Your task to perform on an android device: change notifications settings Image 0: 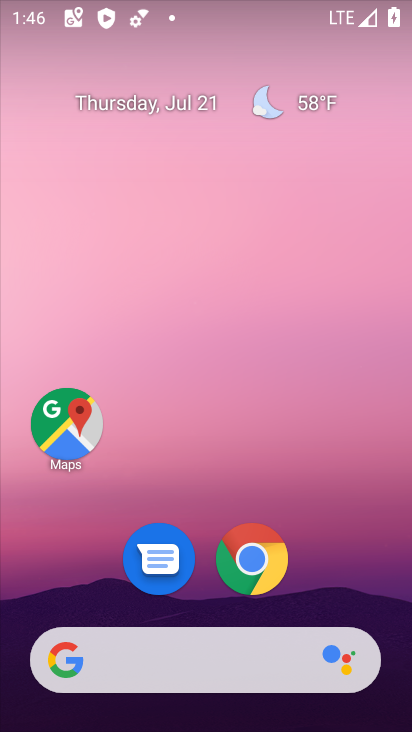
Step 0: drag from (367, 575) to (382, 92)
Your task to perform on an android device: change notifications settings Image 1: 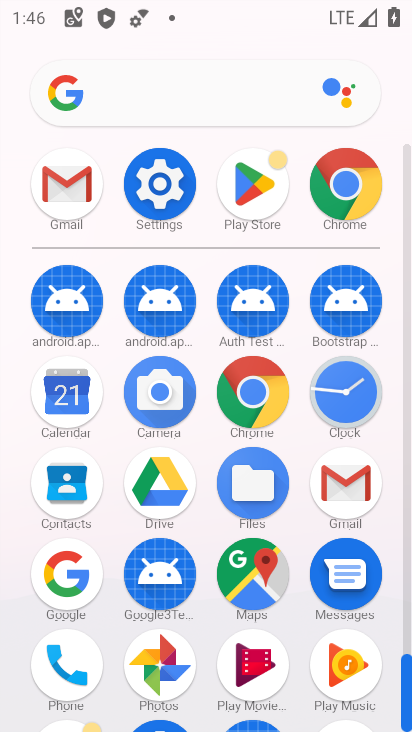
Step 1: click (175, 203)
Your task to perform on an android device: change notifications settings Image 2: 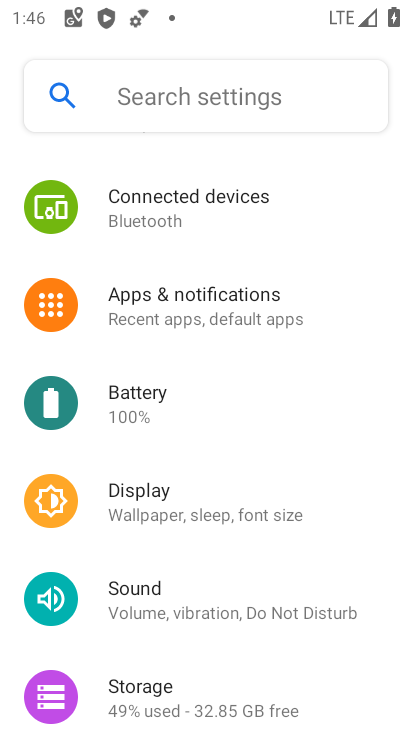
Step 2: drag from (334, 435) to (332, 335)
Your task to perform on an android device: change notifications settings Image 3: 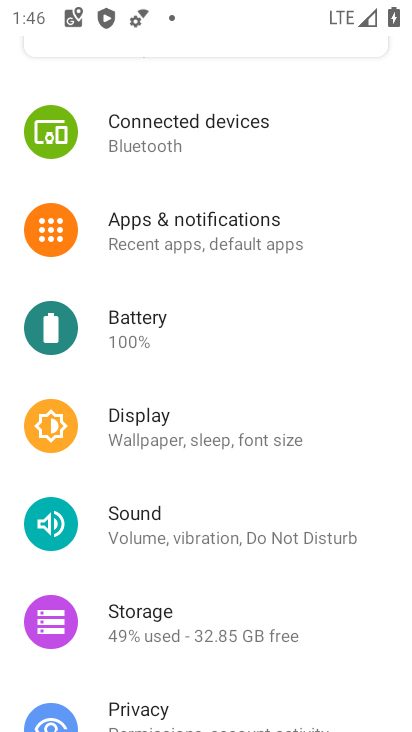
Step 3: drag from (335, 456) to (348, 369)
Your task to perform on an android device: change notifications settings Image 4: 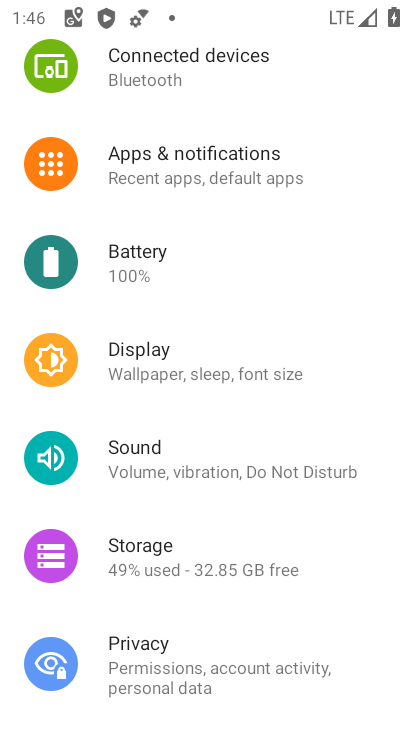
Step 4: drag from (362, 511) to (371, 440)
Your task to perform on an android device: change notifications settings Image 5: 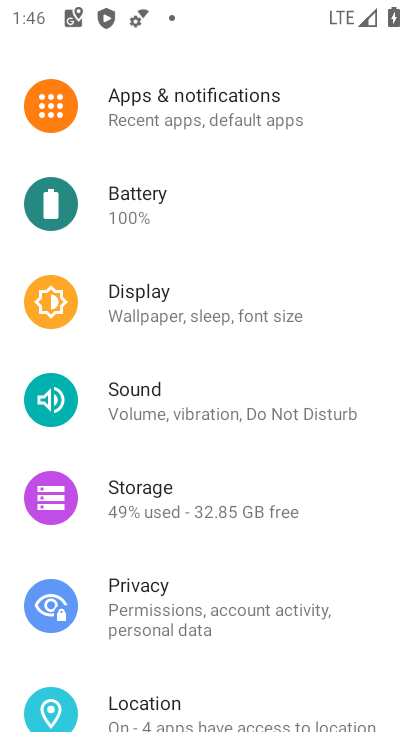
Step 5: drag from (362, 523) to (364, 432)
Your task to perform on an android device: change notifications settings Image 6: 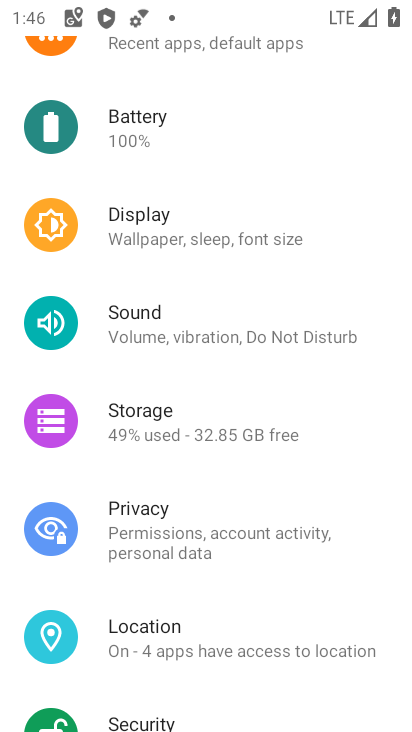
Step 6: drag from (351, 537) to (357, 456)
Your task to perform on an android device: change notifications settings Image 7: 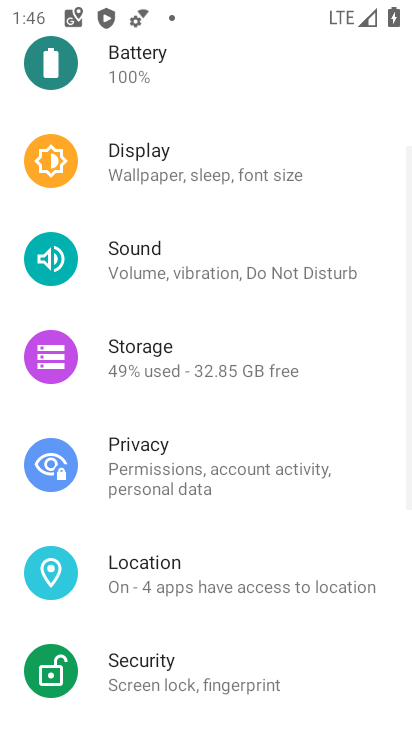
Step 7: drag from (348, 547) to (350, 418)
Your task to perform on an android device: change notifications settings Image 8: 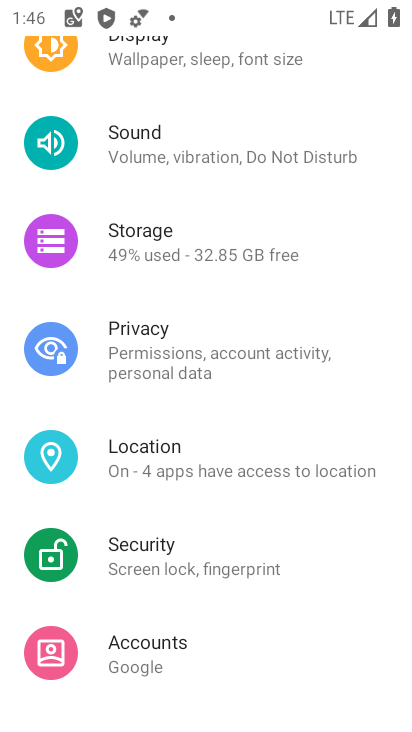
Step 8: drag from (342, 549) to (365, 360)
Your task to perform on an android device: change notifications settings Image 9: 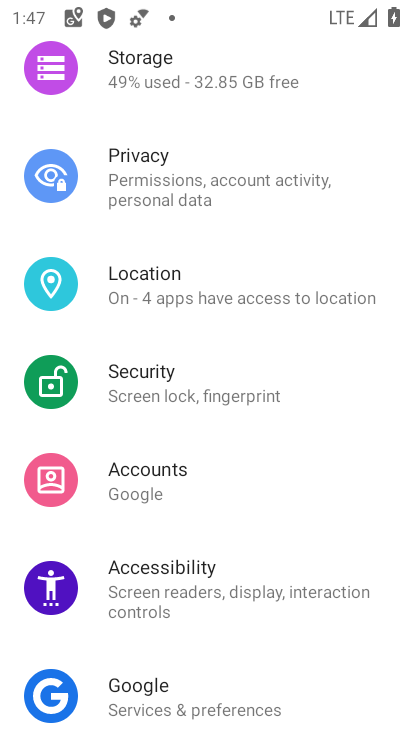
Step 9: drag from (362, 345) to (354, 431)
Your task to perform on an android device: change notifications settings Image 10: 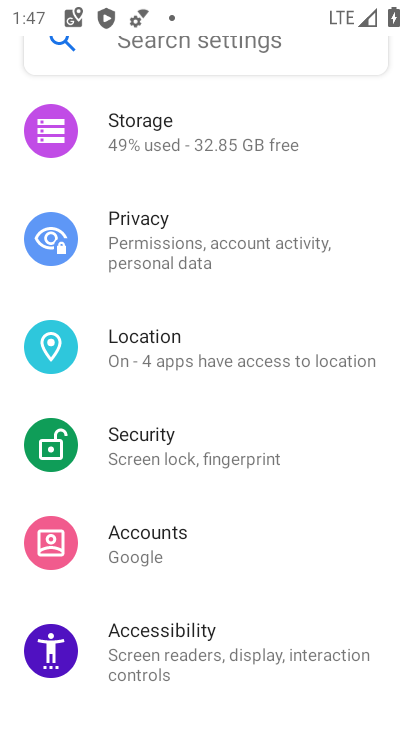
Step 10: drag from (369, 301) to (374, 409)
Your task to perform on an android device: change notifications settings Image 11: 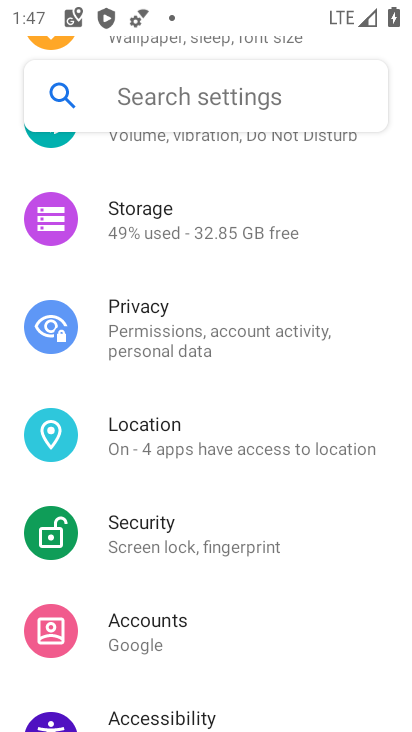
Step 11: drag from (362, 277) to (362, 382)
Your task to perform on an android device: change notifications settings Image 12: 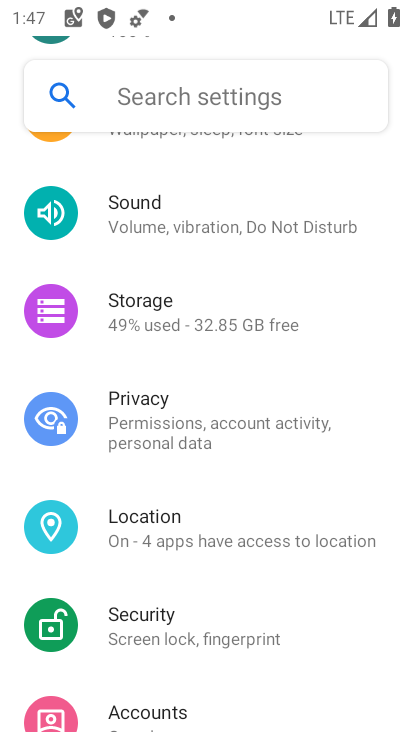
Step 12: drag from (366, 277) to (371, 376)
Your task to perform on an android device: change notifications settings Image 13: 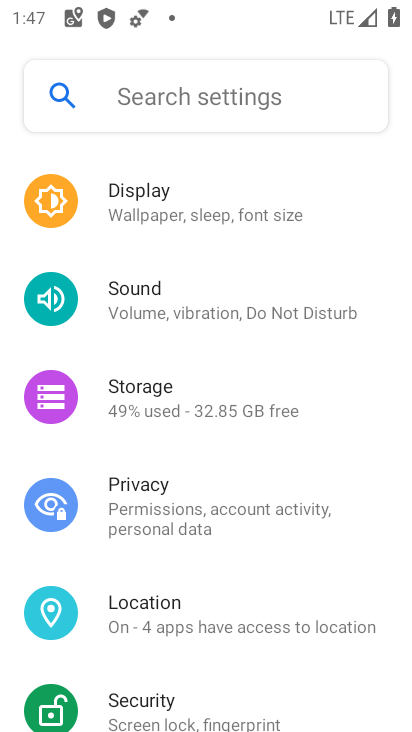
Step 13: drag from (376, 260) to (382, 390)
Your task to perform on an android device: change notifications settings Image 14: 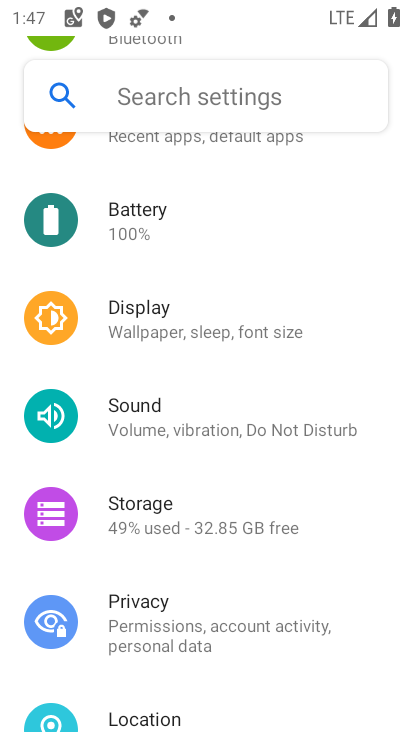
Step 14: drag from (348, 255) to (354, 369)
Your task to perform on an android device: change notifications settings Image 15: 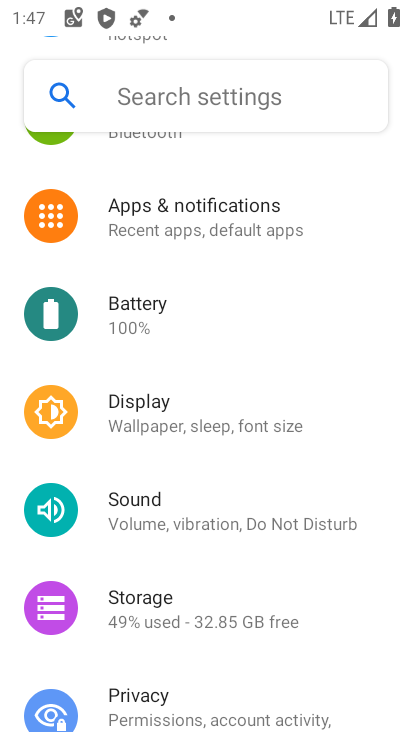
Step 15: drag from (354, 238) to (371, 390)
Your task to perform on an android device: change notifications settings Image 16: 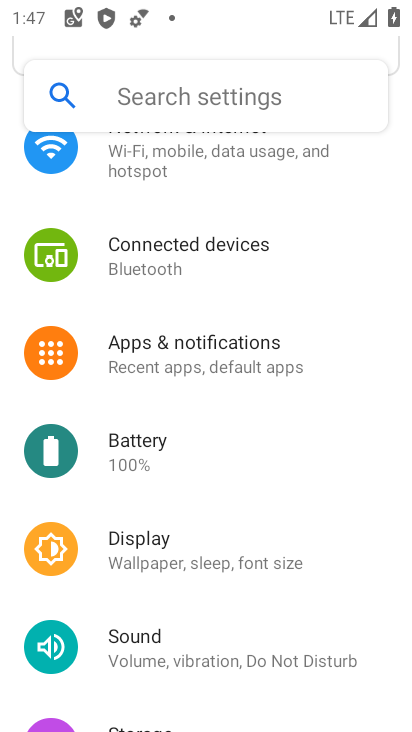
Step 16: drag from (346, 215) to (352, 382)
Your task to perform on an android device: change notifications settings Image 17: 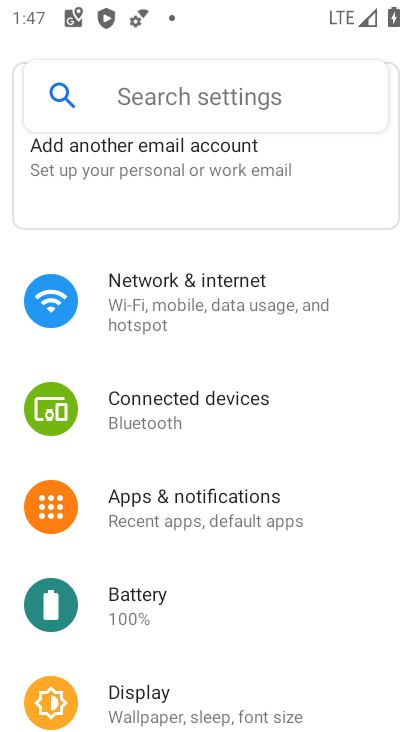
Step 17: click (285, 507)
Your task to perform on an android device: change notifications settings Image 18: 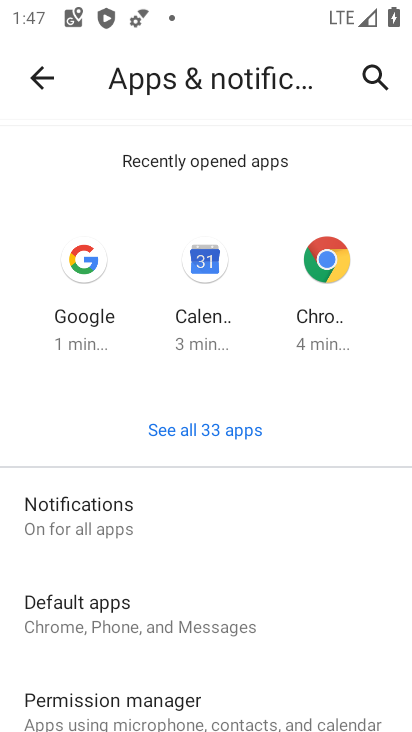
Step 18: drag from (307, 513) to (306, 361)
Your task to perform on an android device: change notifications settings Image 19: 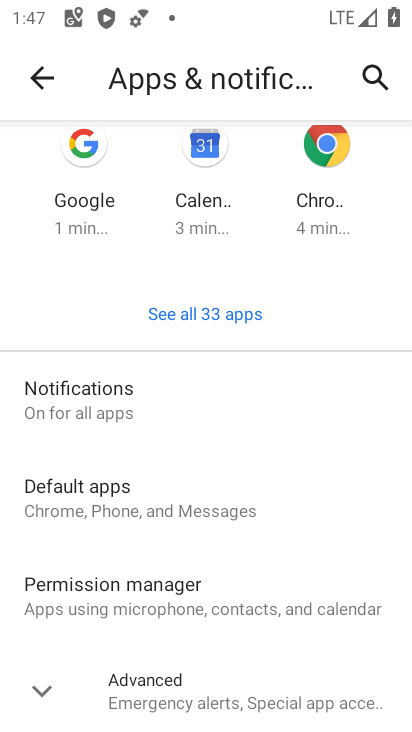
Step 19: drag from (309, 468) to (325, 346)
Your task to perform on an android device: change notifications settings Image 20: 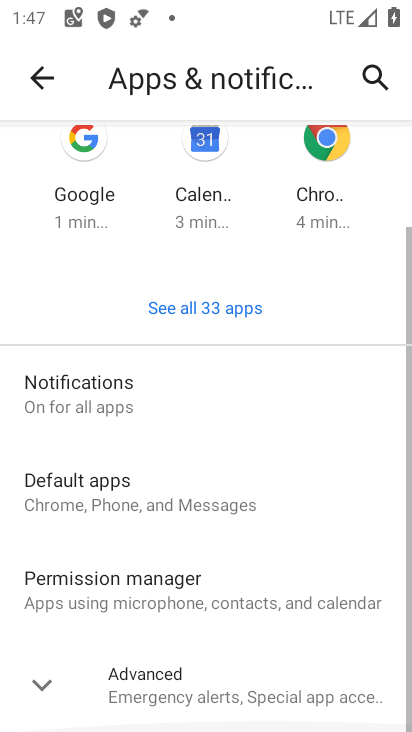
Step 20: click (133, 399)
Your task to perform on an android device: change notifications settings Image 21: 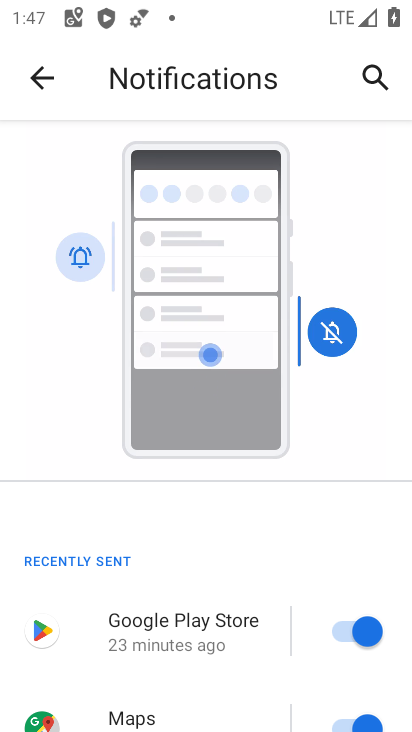
Step 21: drag from (245, 536) to (262, 439)
Your task to perform on an android device: change notifications settings Image 22: 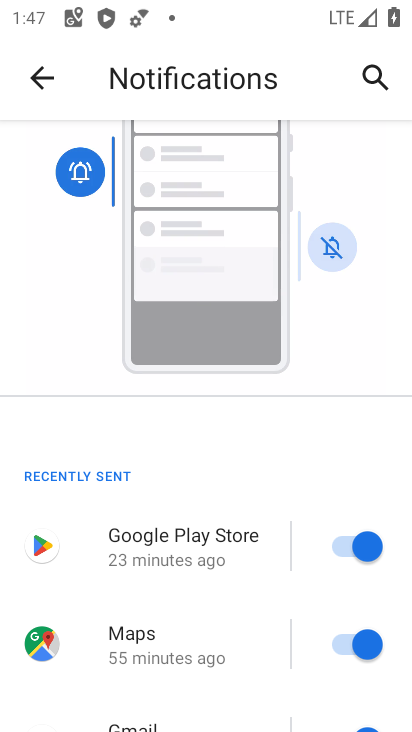
Step 22: drag from (253, 584) to (257, 435)
Your task to perform on an android device: change notifications settings Image 23: 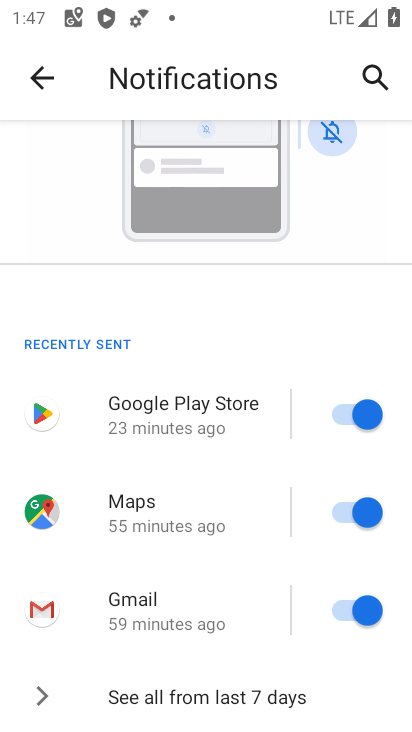
Step 23: drag from (251, 576) to (266, 353)
Your task to perform on an android device: change notifications settings Image 24: 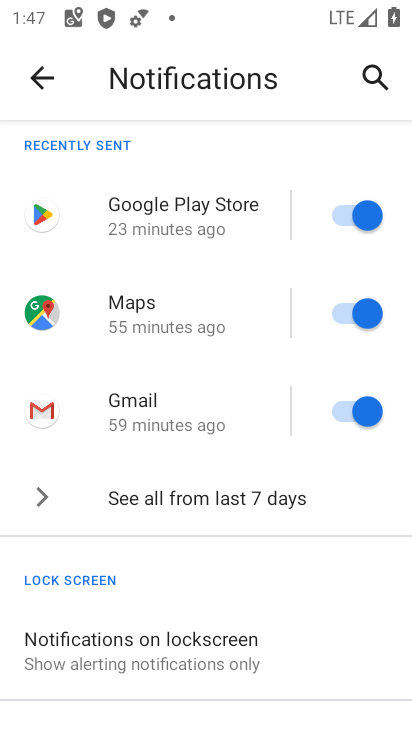
Step 24: drag from (241, 558) to (251, 448)
Your task to perform on an android device: change notifications settings Image 25: 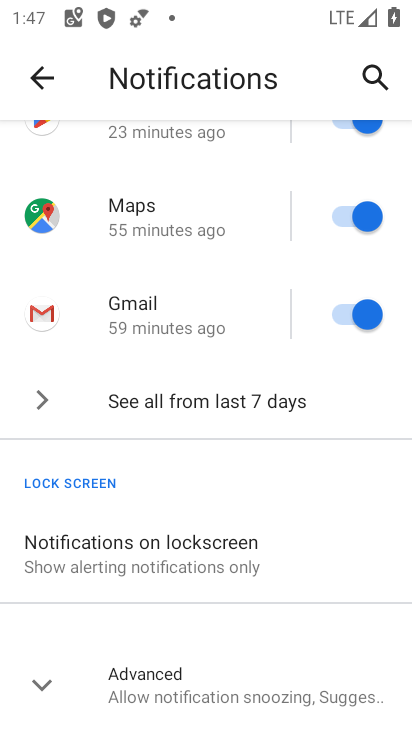
Step 25: drag from (250, 606) to (252, 481)
Your task to perform on an android device: change notifications settings Image 26: 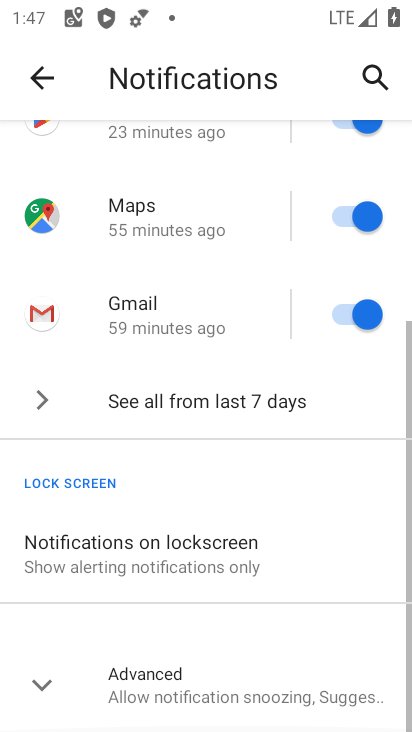
Step 26: drag from (255, 282) to (252, 469)
Your task to perform on an android device: change notifications settings Image 27: 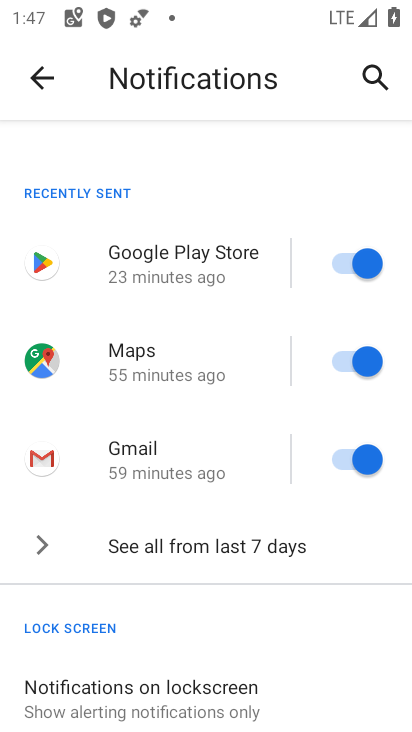
Step 27: click (367, 465)
Your task to perform on an android device: change notifications settings Image 28: 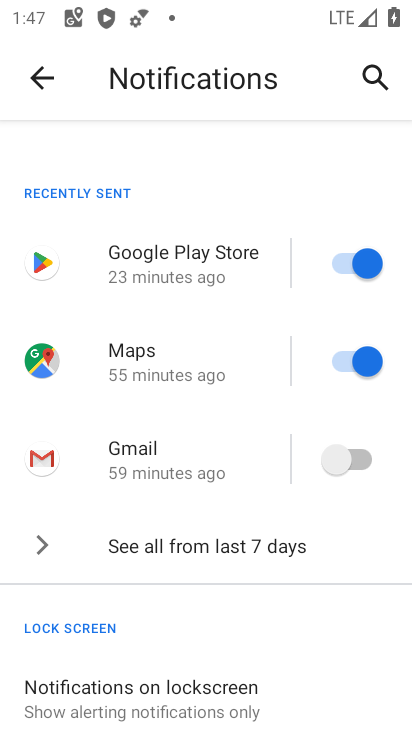
Step 28: click (372, 354)
Your task to perform on an android device: change notifications settings Image 29: 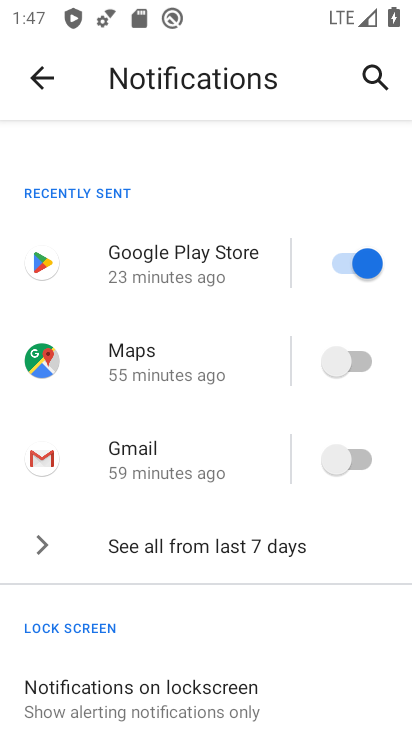
Step 29: click (359, 273)
Your task to perform on an android device: change notifications settings Image 30: 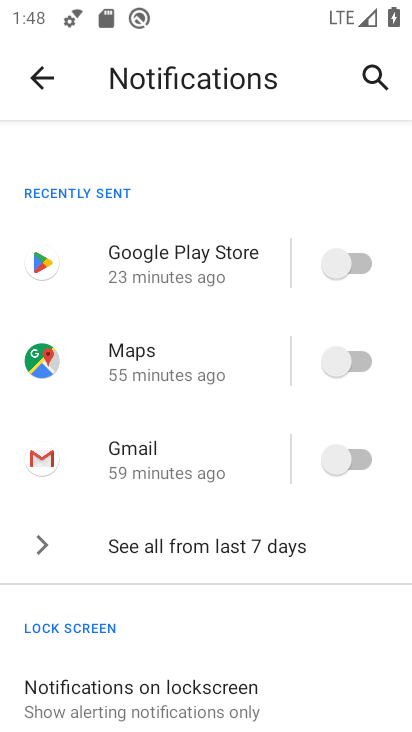
Step 30: task complete